Your task to perform on an android device: Go to settings Image 0: 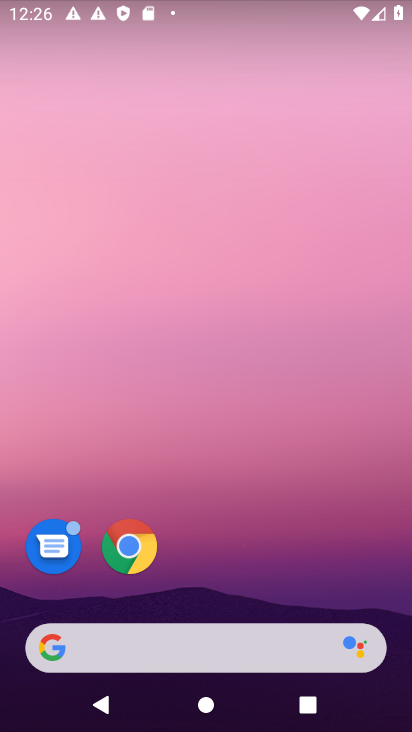
Step 0: drag from (380, 553) to (359, 92)
Your task to perform on an android device: Go to settings Image 1: 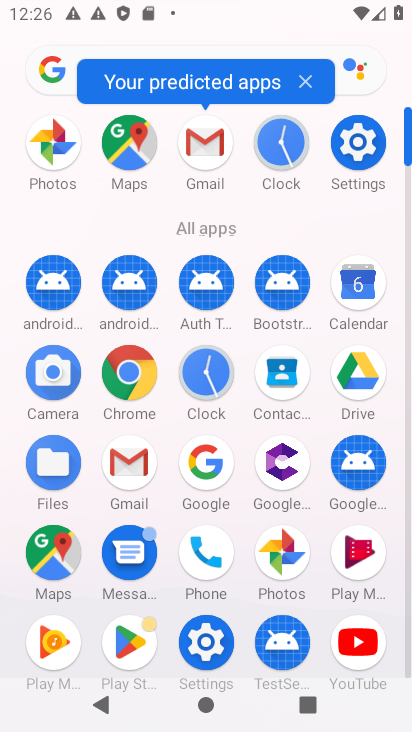
Step 1: click (201, 651)
Your task to perform on an android device: Go to settings Image 2: 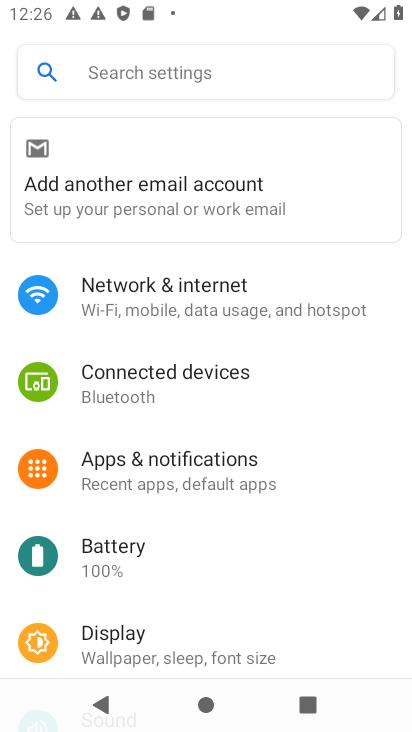
Step 2: task complete